Your task to perform on an android device: Toggle the flashlight Image 0: 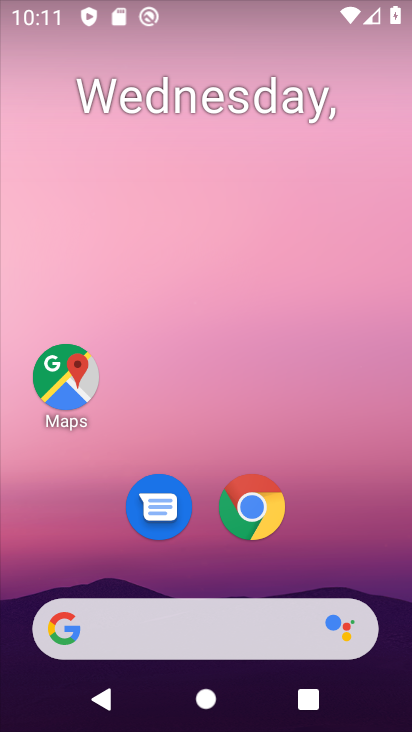
Step 0: drag from (258, 654) to (297, 130)
Your task to perform on an android device: Toggle the flashlight Image 1: 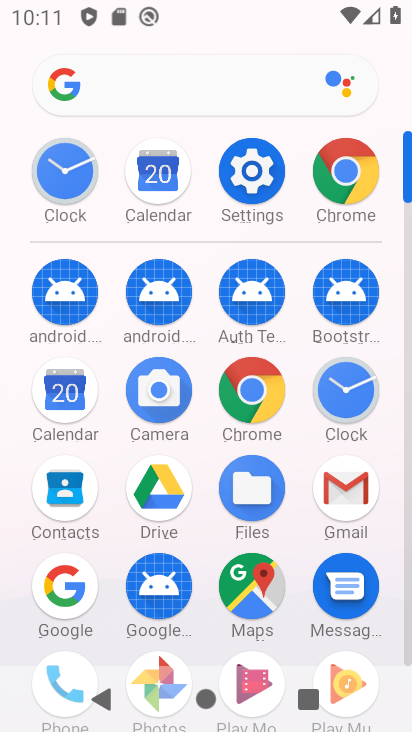
Step 1: click (257, 170)
Your task to perform on an android device: Toggle the flashlight Image 2: 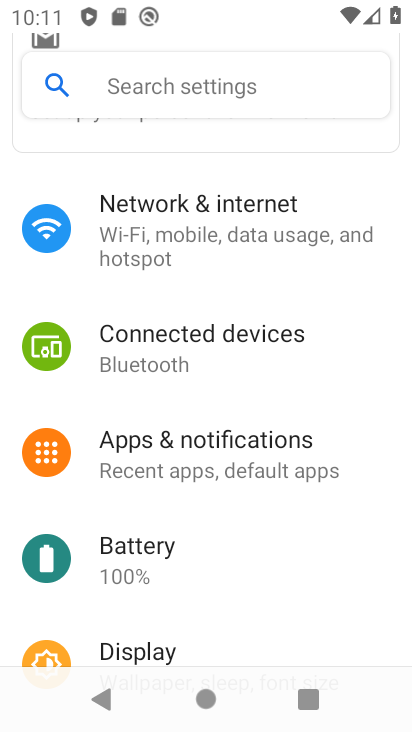
Step 2: click (178, 90)
Your task to perform on an android device: Toggle the flashlight Image 3: 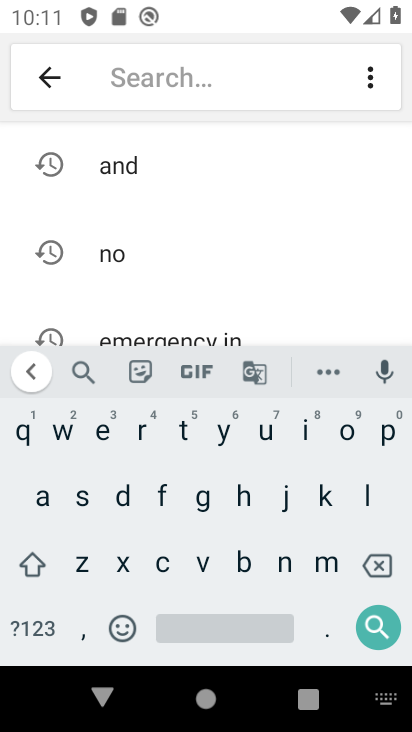
Step 3: click (160, 497)
Your task to perform on an android device: Toggle the flashlight Image 4: 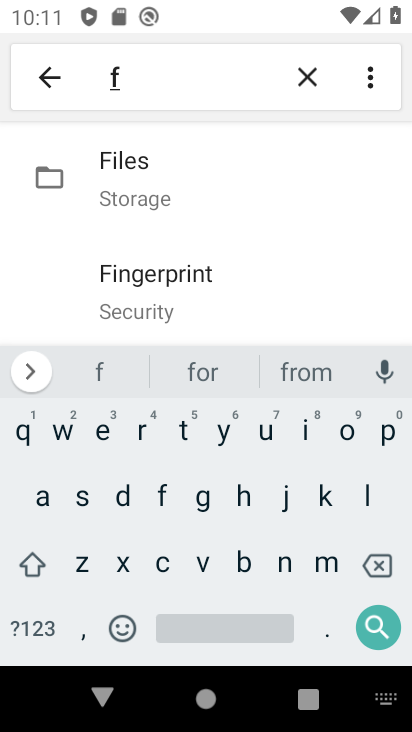
Step 4: click (367, 489)
Your task to perform on an android device: Toggle the flashlight Image 5: 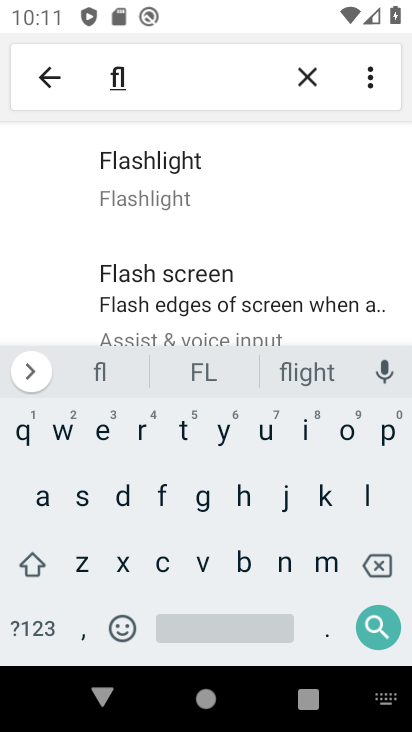
Step 5: click (163, 192)
Your task to perform on an android device: Toggle the flashlight Image 6: 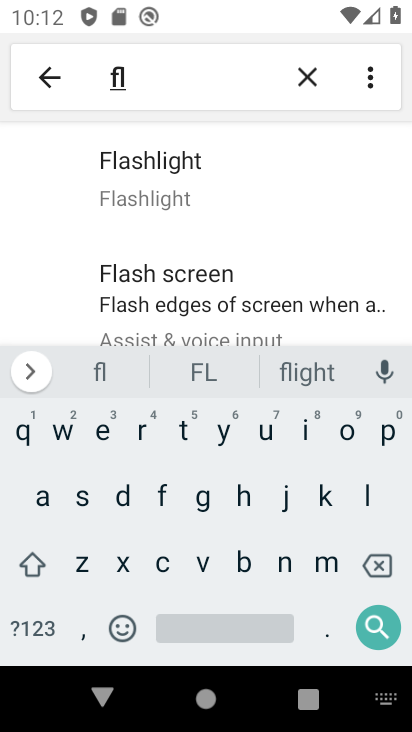
Step 6: task complete